Your task to perform on an android device: turn off smart reply in the gmail app Image 0: 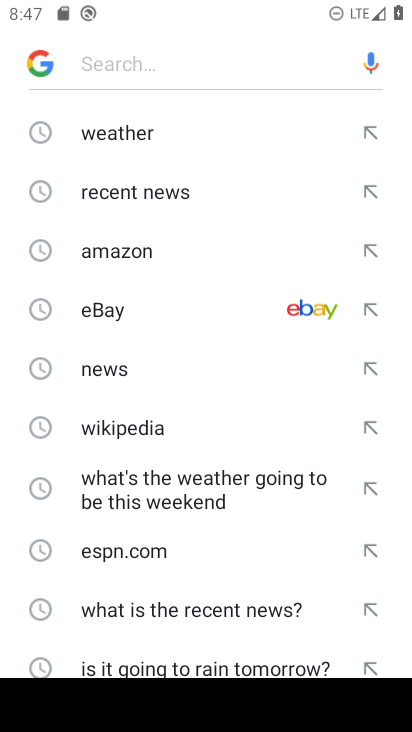
Step 0: press home button
Your task to perform on an android device: turn off smart reply in the gmail app Image 1: 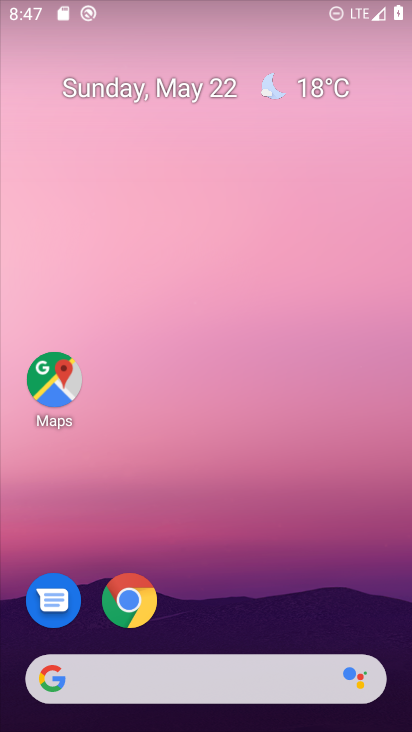
Step 1: drag from (390, 633) to (316, 6)
Your task to perform on an android device: turn off smart reply in the gmail app Image 2: 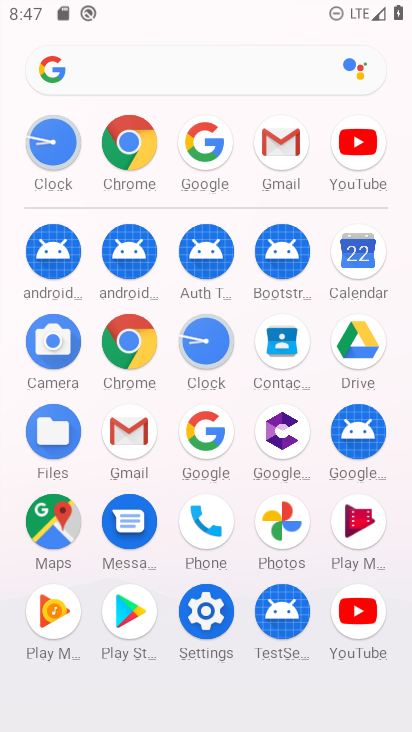
Step 2: click (122, 444)
Your task to perform on an android device: turn off smart reply in the gmail app Image 3: 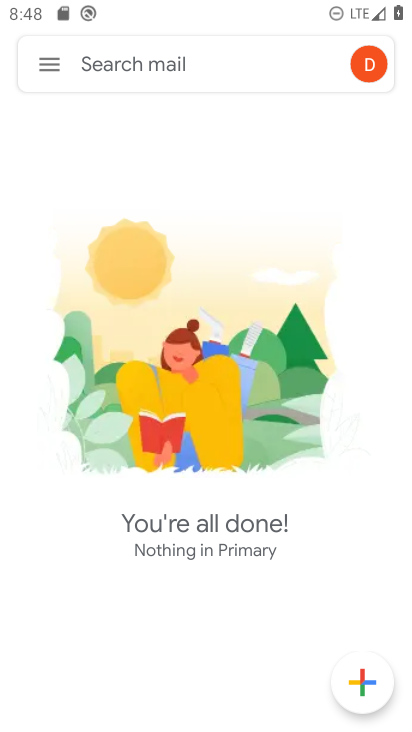
Step 3: click (42, 60)
Your task to perform on an android device: turn off smart reply in the gmail app Image 4: 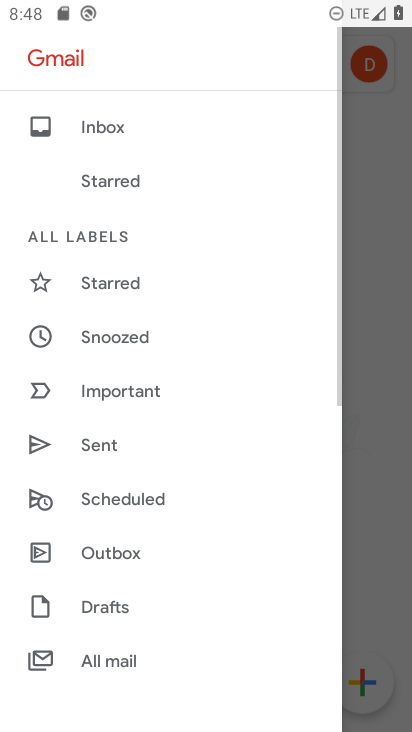
Step 4: drag from (185, 653) to (213, 71)
Your task to perform on an android device: turn off smart reply in the gmail app Image 5: 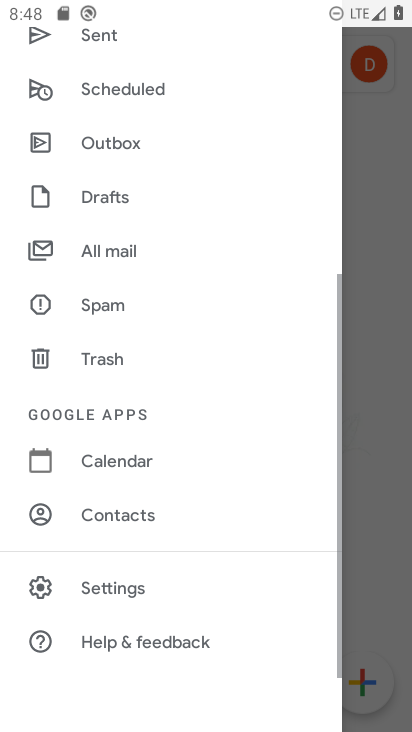
Step 5: click (102, 586)
Your task to perform on an android device: turn off smart reply in the gmail app Image 6: 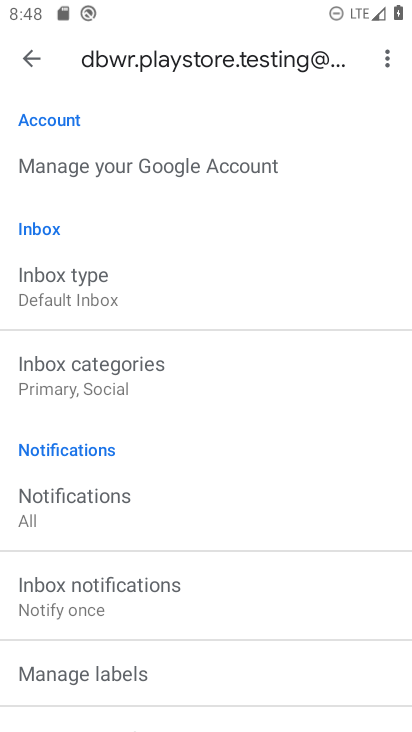
Step 6: drag from (215, 646) to (200, 92)
Your task to perform on an android device: turn off smart reply in the gmail app Image 7: 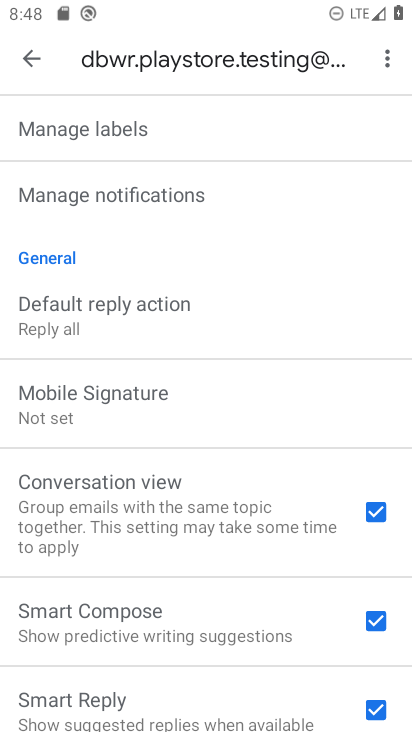
Step 7: click (306, 686)
Your task to perform on an android device: turn off smart reply in the gmail app Image 8: 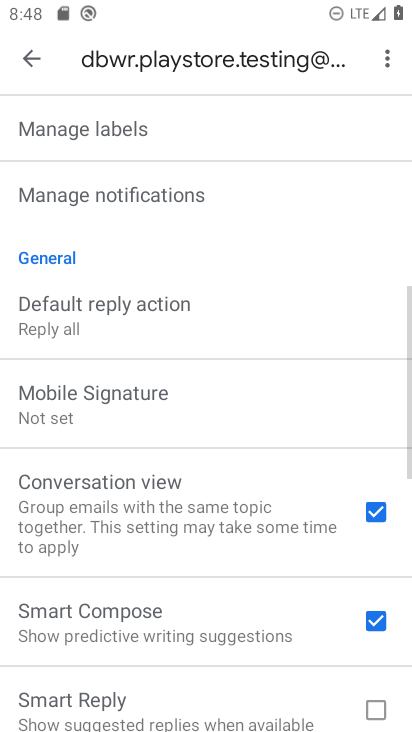
Step 8: task complete